Your task to perform on an android device: Open notification settings Image 0: 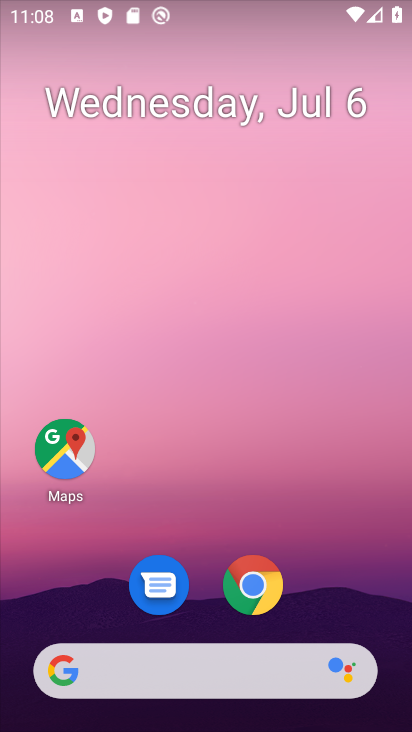
Step 0: drag from (223, 474) to (241, 30)
Your task to perform on an android device: Open notification settings Image 1: 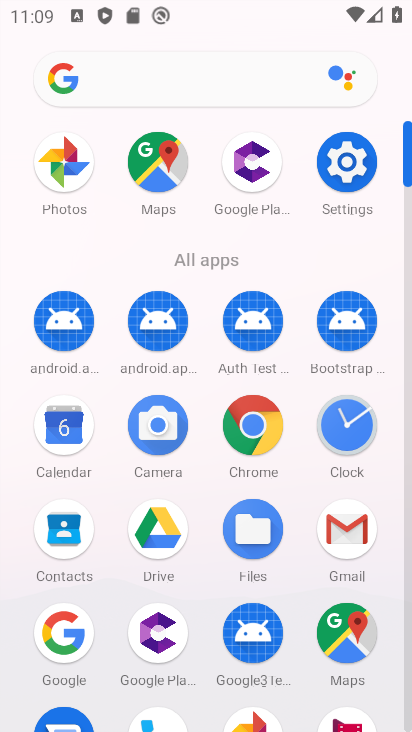
Step 1: click (344, 162)
Your task to perform on an android device: Open notification settings Image 2: 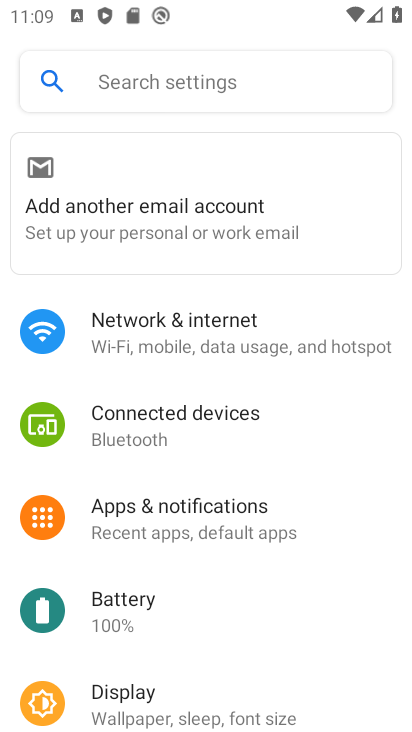
Step 2: click (228, 519)
Your task to perform on an android device: Open notification settings Image 3: 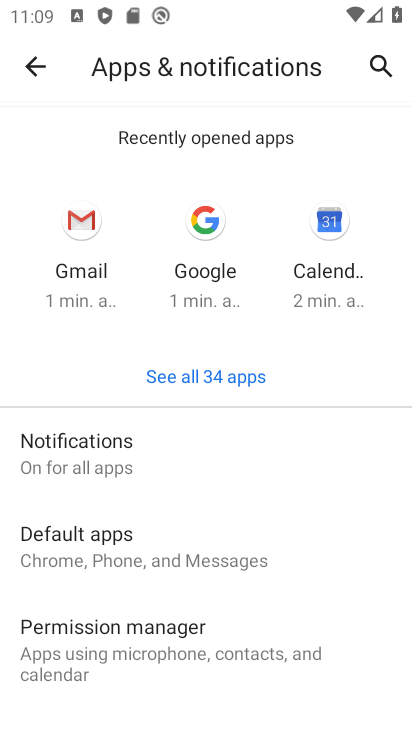
Step 3: task complete